Your task to perform on an android device: turn on airplane mode Image 0: 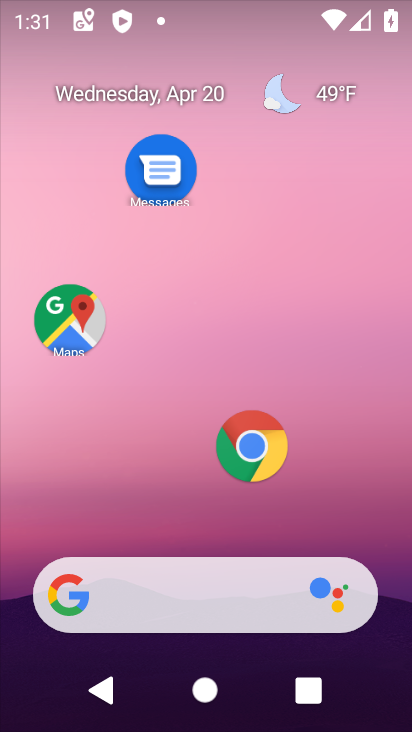
Step 0: drag from (245, 24) to (238, 488)
Your task to perform on an android device: turn on airplane mode Image 1: 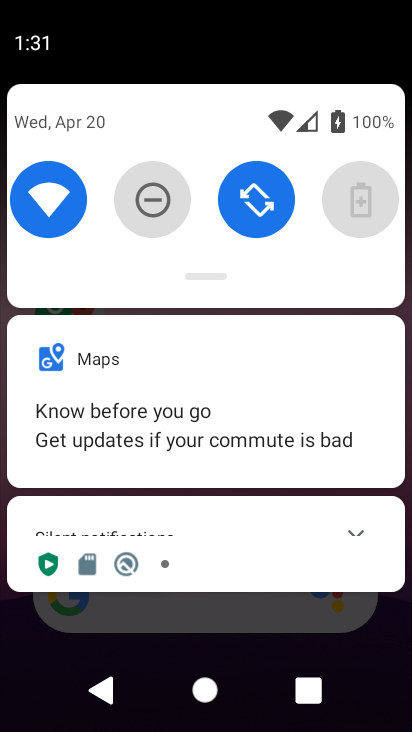
Step 1: drag from (224, 273) to (200, 631)
Your task to perform on an android device: turn on airplane mode Image 2: 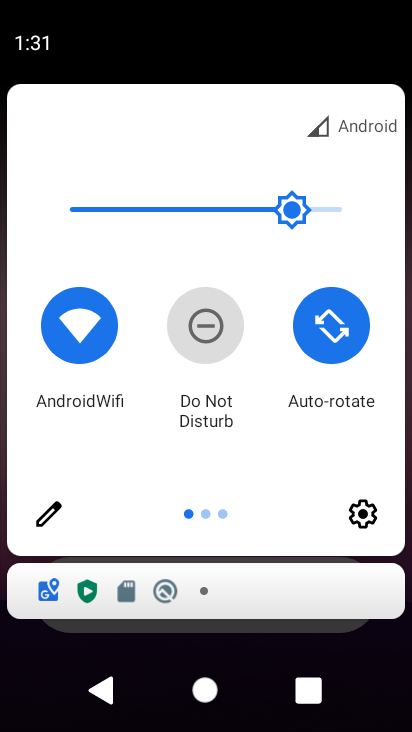
Step 2: drag from (363, 356) to (0, 363)
Your task to perform on an android device: turn on airplane mode Image 3: 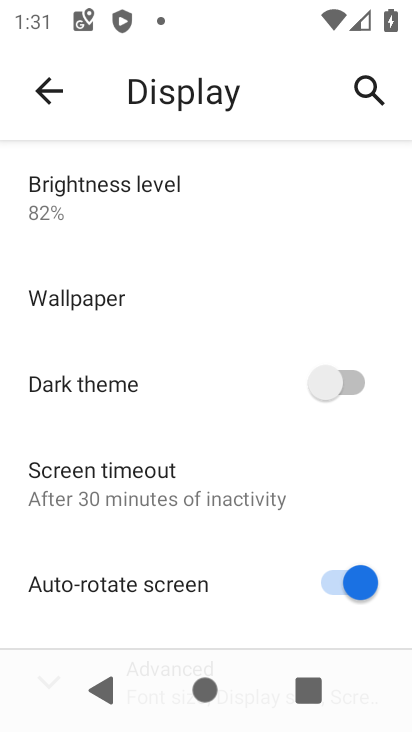
Step 3: drag from (213, 18) to (192, 651)
Your task to perform on an android device: turn on airplane mode Image 4: 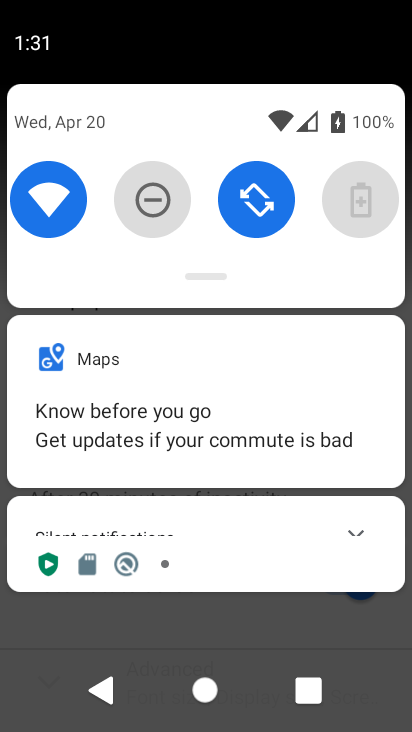
Step 4: drag from (243, 284) to (243, 701)
Your task to perform on an android device: turn on airplane mode Image 5: 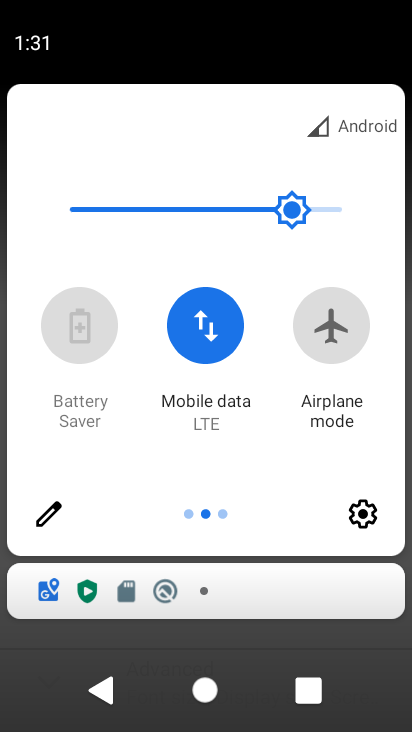
Step 5: click (333, 319)
Your task to perform on an android device: turn on airplane mode Image 6: 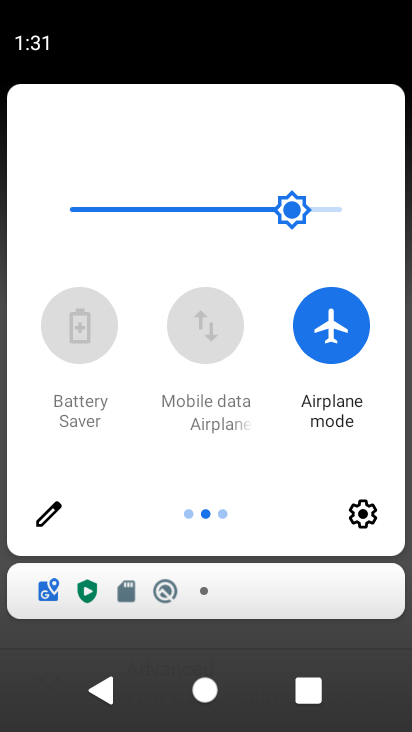
Step 6: task complete